Your task to perform on an android device: Open display settings Image 0: 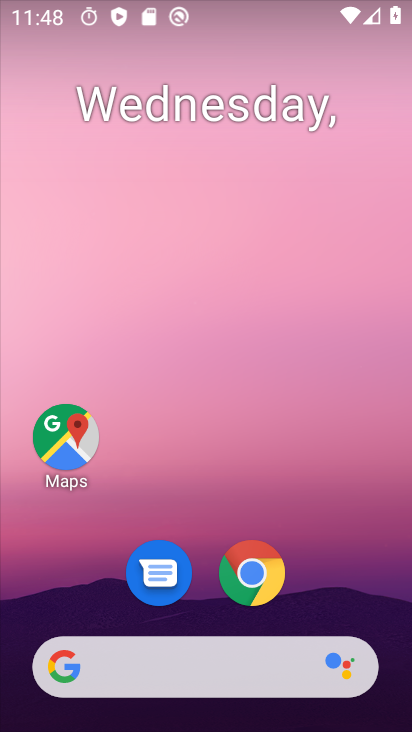
Step 0: click (385, 166)
Your task to perform on an android device: Open display settings Image 1: 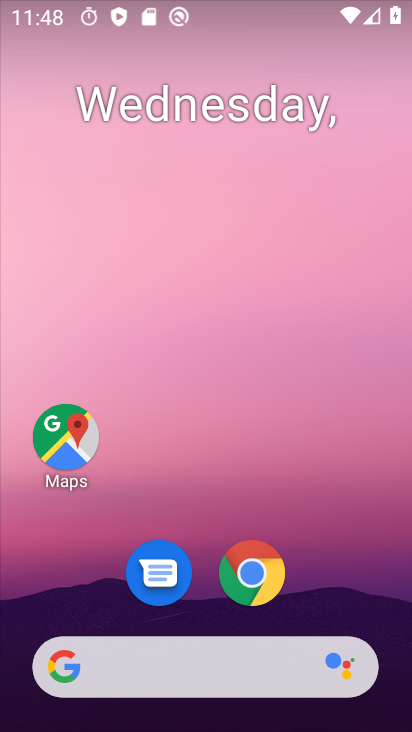
Step 1: drag from (380, 496) to (374, 168)
Your task to perform on an android device: Open display settings Image 2: 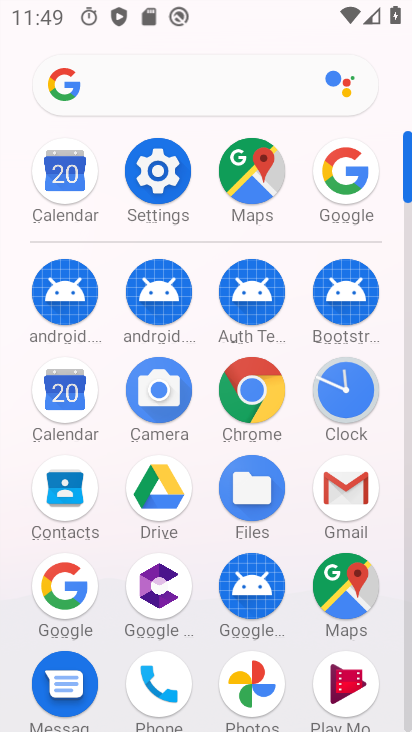
Step 2: click (168, 170)
Your task to perform on an android device: Open display settings Image 3: 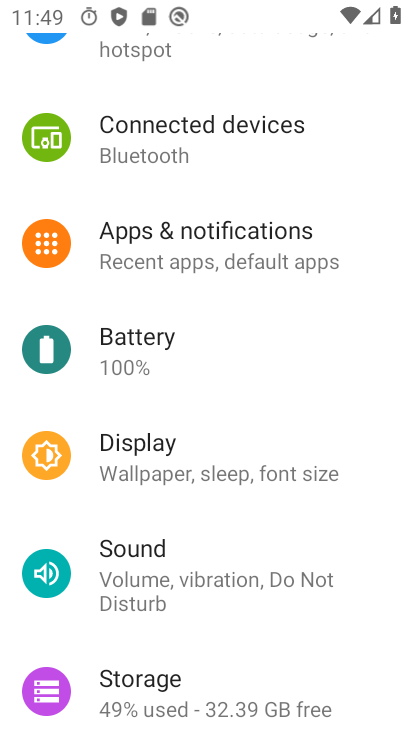
Step 3: click (130, 447)
Your task to perform on an android device: Open display settings Image 4: 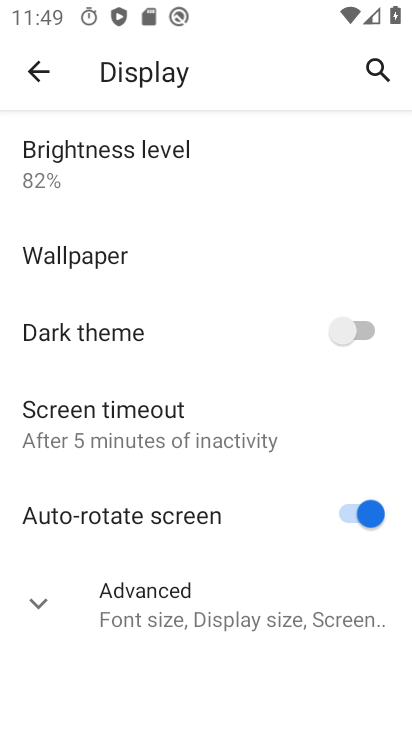
Step 4: task complete